Your task to perform on an android device: Open display settings Image 0: 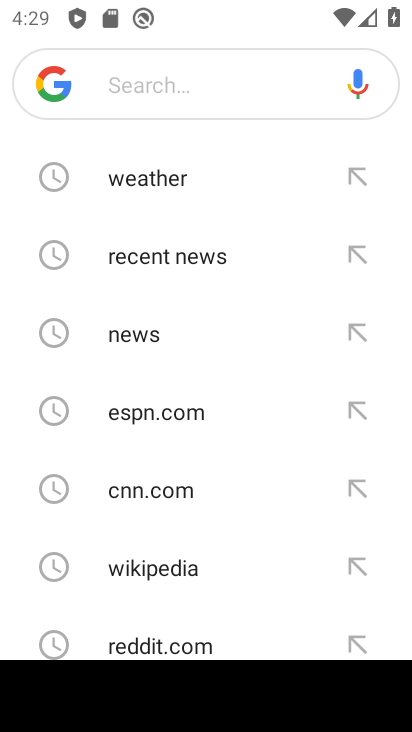
Step 0: press home button
Your task to perform on an android device: Open display settings Image 1: 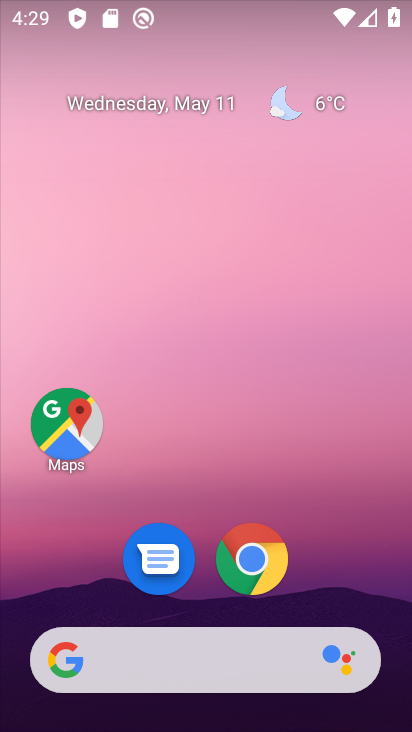
Step 1: drag from (299, 562) to (346, 127)
Your task to perform on an android device: Open display settings Image 2: 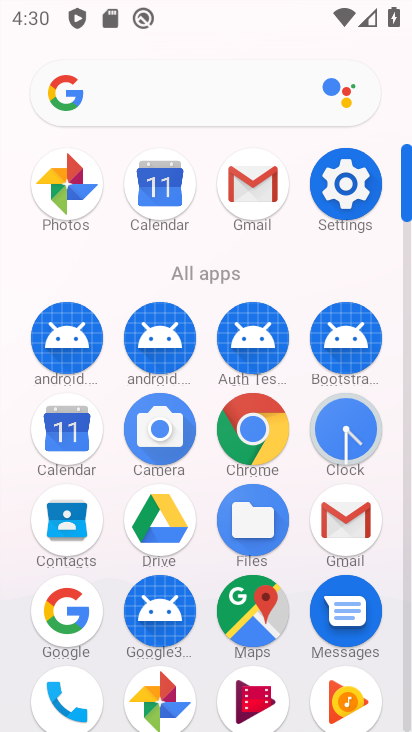
Step 2: drag from (200, 629) to (260, 394)
Your task to perform on an android device: Open display settings Image 3: 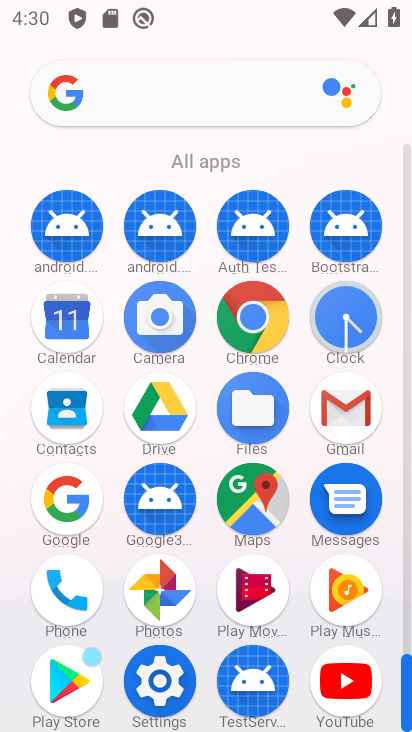
Step 3: drag from (316, 298) to (293, 502)
Your task to perform on an android device: Open display settings Image 4: 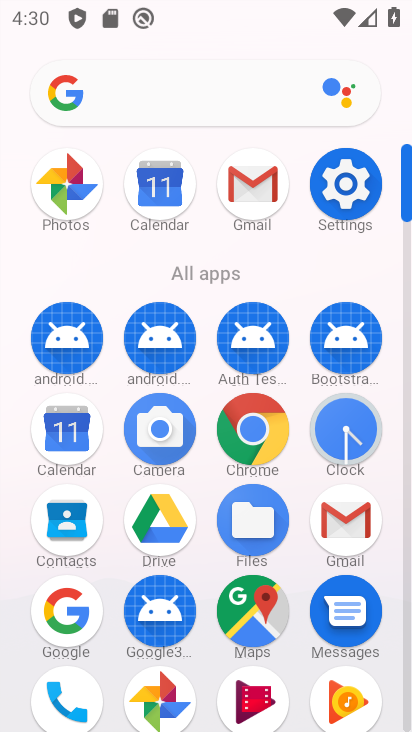
Step 4: click (359, 189)
Your task to perform on an android device: Open display settings Image 5: 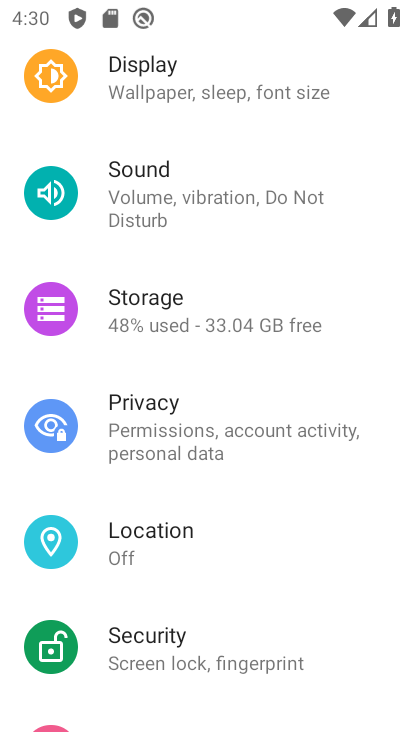
Step 5: click (185, 90)
Your task to perform on an android device: Open display settings Image 6: 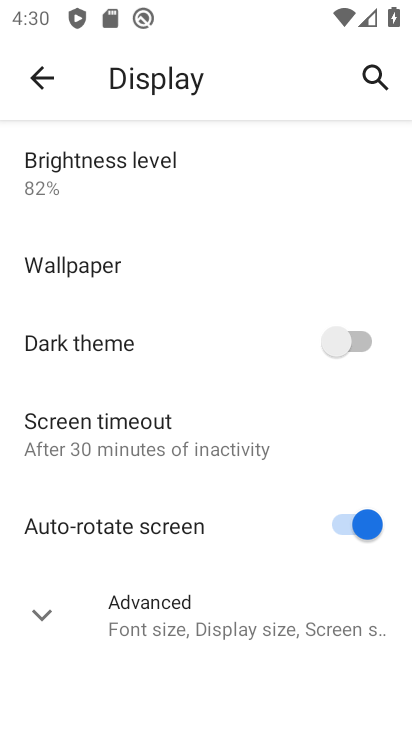
Step 6: task complete